Your task to perform on an android device: create a new album in the google photos Image 0: 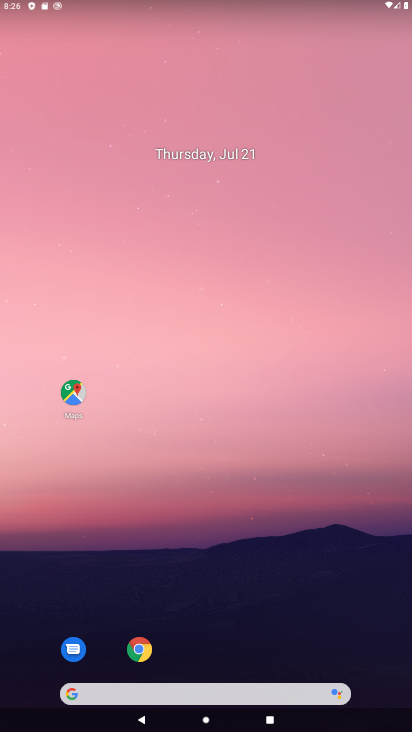
Step 0: drag from (257, 642) to (216, 88)
Your task to perform on an android device: create a new album in the google photos Image 1: 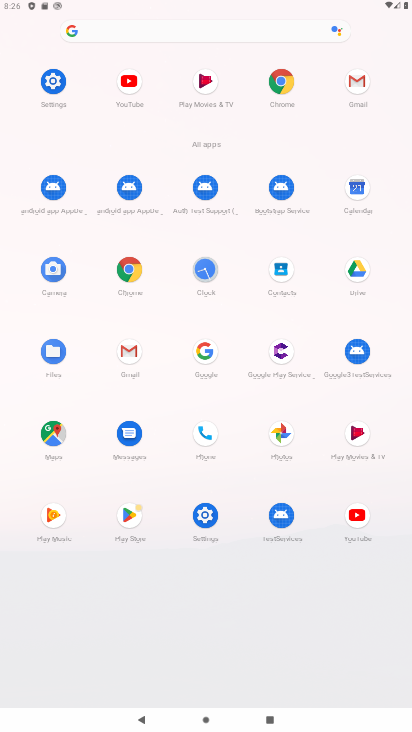
Step 1: click (278, 443)
Your task to perform on an android device: create a new album in the google photos Image 2: 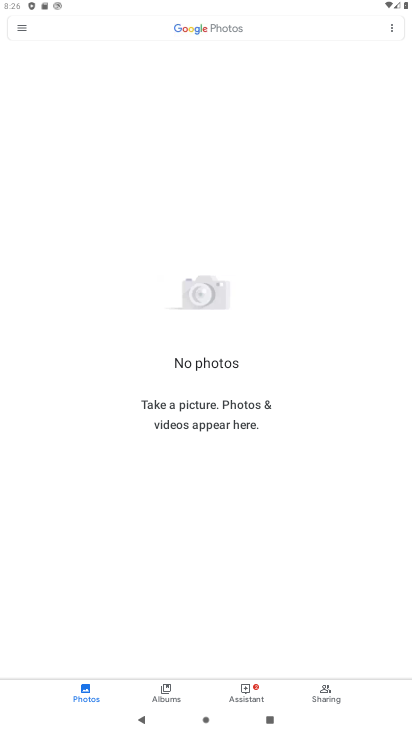
Step 2: task complete